Your task to perform on an android device: Go to battery settings Image 0: 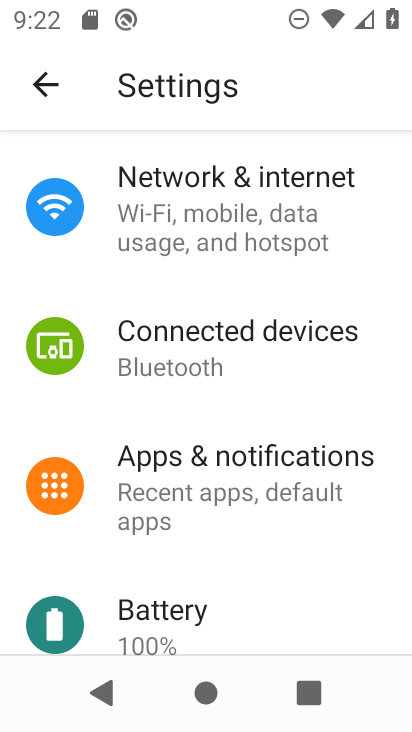
Step 0: press home button
Your task to perform on an android device: Go to battery settings Image 1: 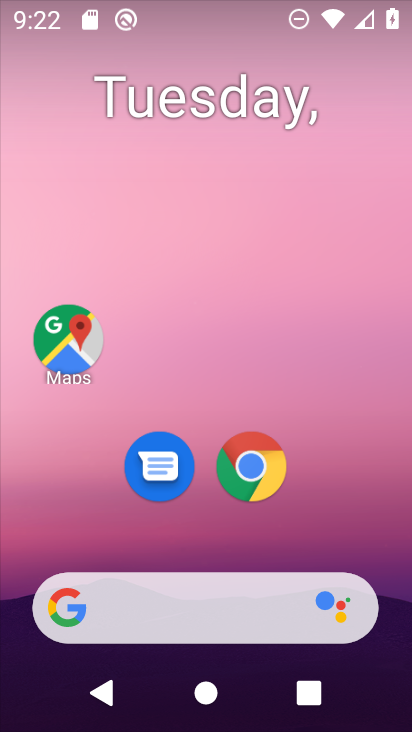
Step 1: drag from (350, 477) to (341, 107)
Your task to perform on an android device: Go to battery settings Image 2: 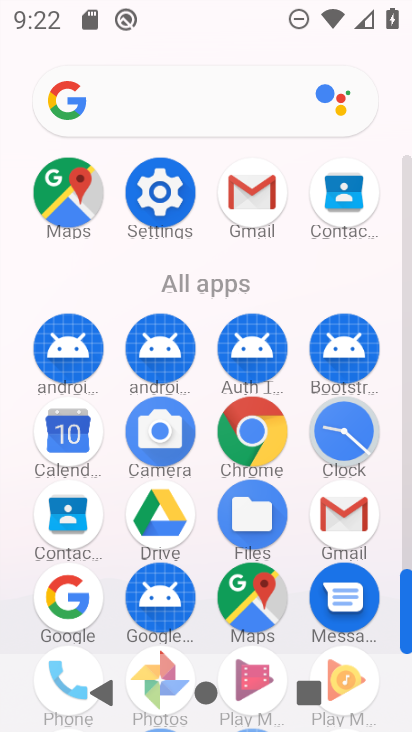
Step 2: click (163, 195)
Your task to perform on an android device: Go to battery settings Image 3: 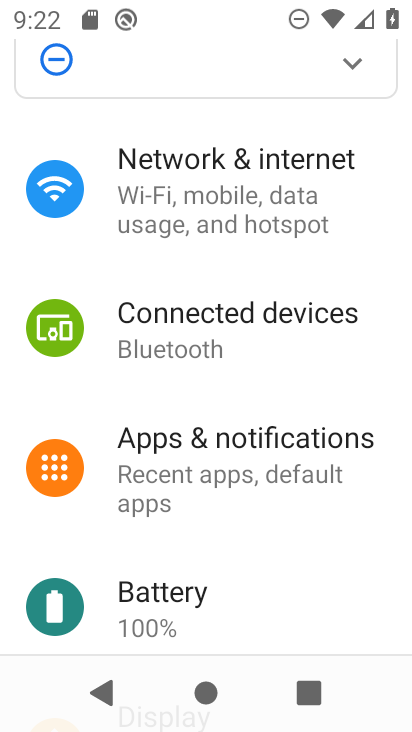
Step 3: drag from (249, 544) to (260, 318)
Your task to perform on an android device: Go to battery settings Image 4: 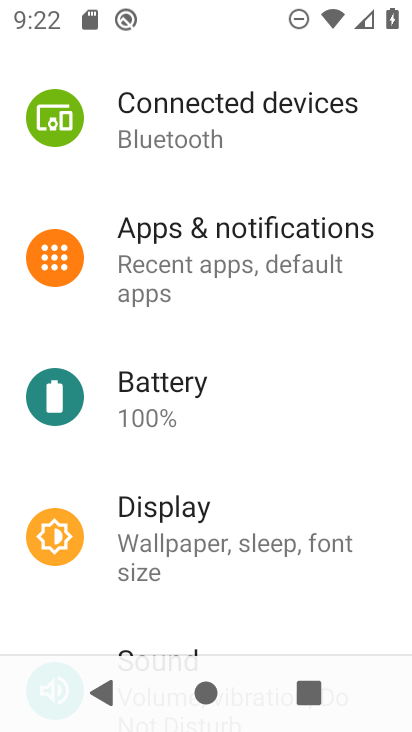
Step 4: click (165, 404)
Your task to perform on an android device: Go to battery settings Image 5: 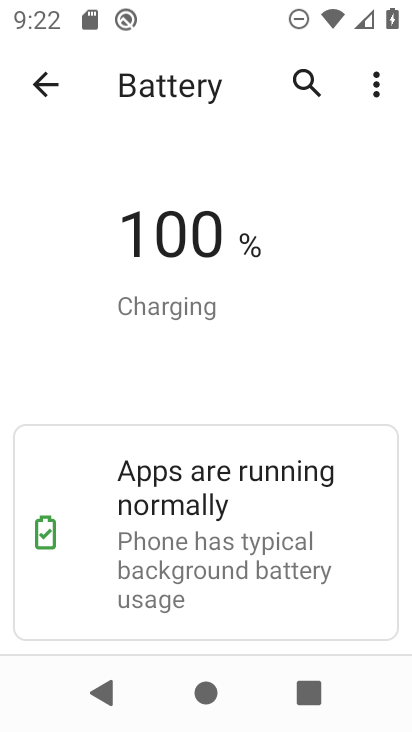
Step 5: task complete